Your task to perform on an android device: Open Youtube and go to the subscriptions tab Image 0: 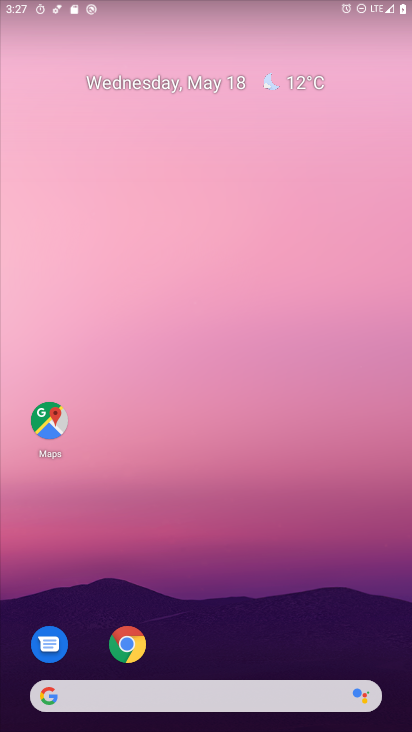
Step 0: drag from (397, 628) to (397, 144)
Your task to perform on an android device: Open Youtube and go to the subscriptions tab Image 1: 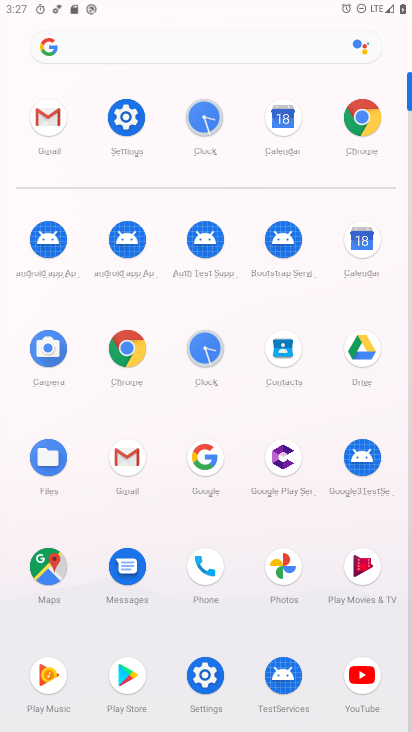
Step 1: click (369, 673)
Your task to perform on an android device: Open Youtube and go to the subscriptions tab Image 2: 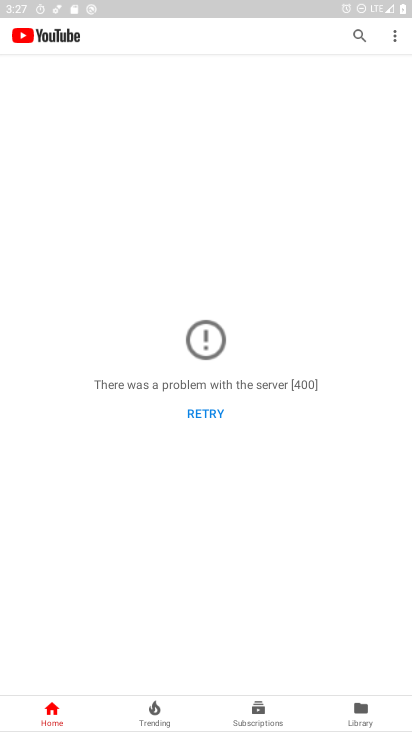
Step 2: task complete